Your task to perform on an android device: What is the news today? Image 0: 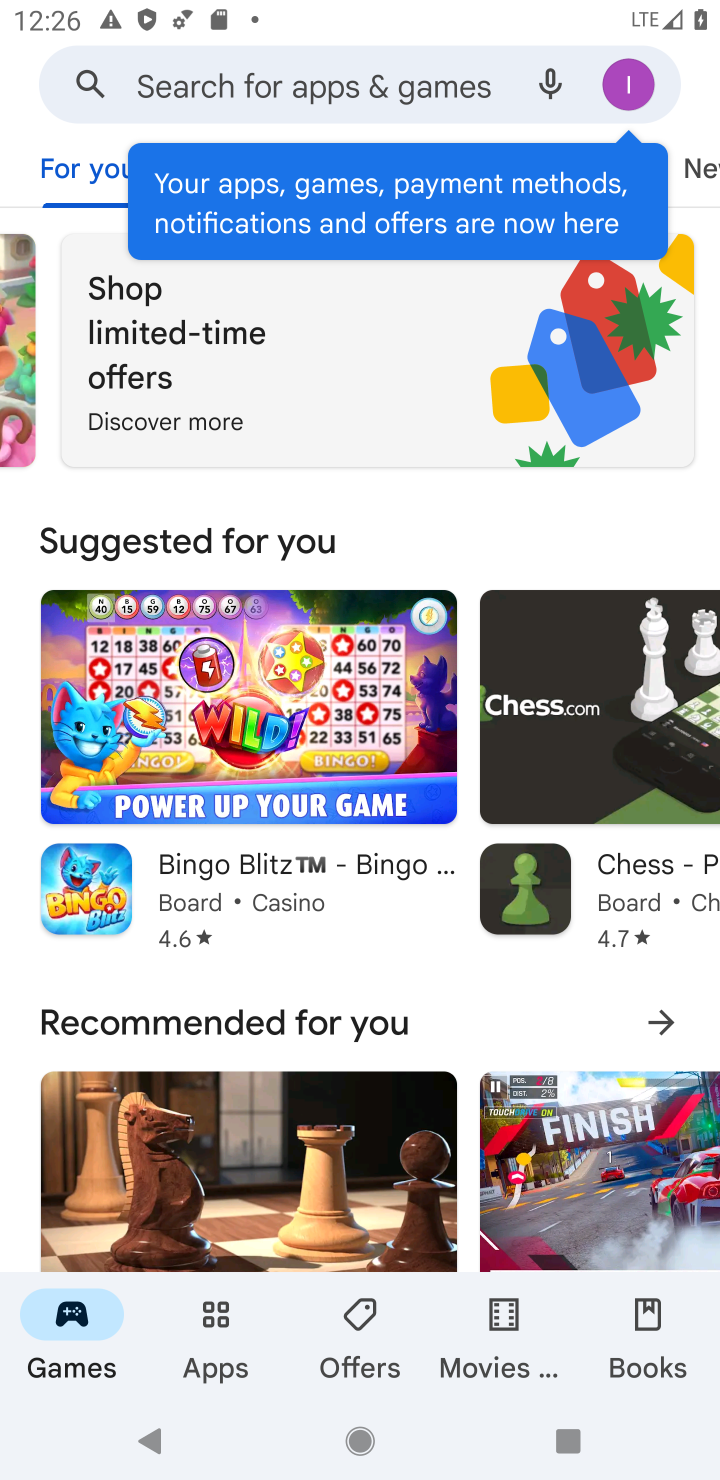
Step 0: press home button
Your task to perform on an android device: What is the news today? Image 1: 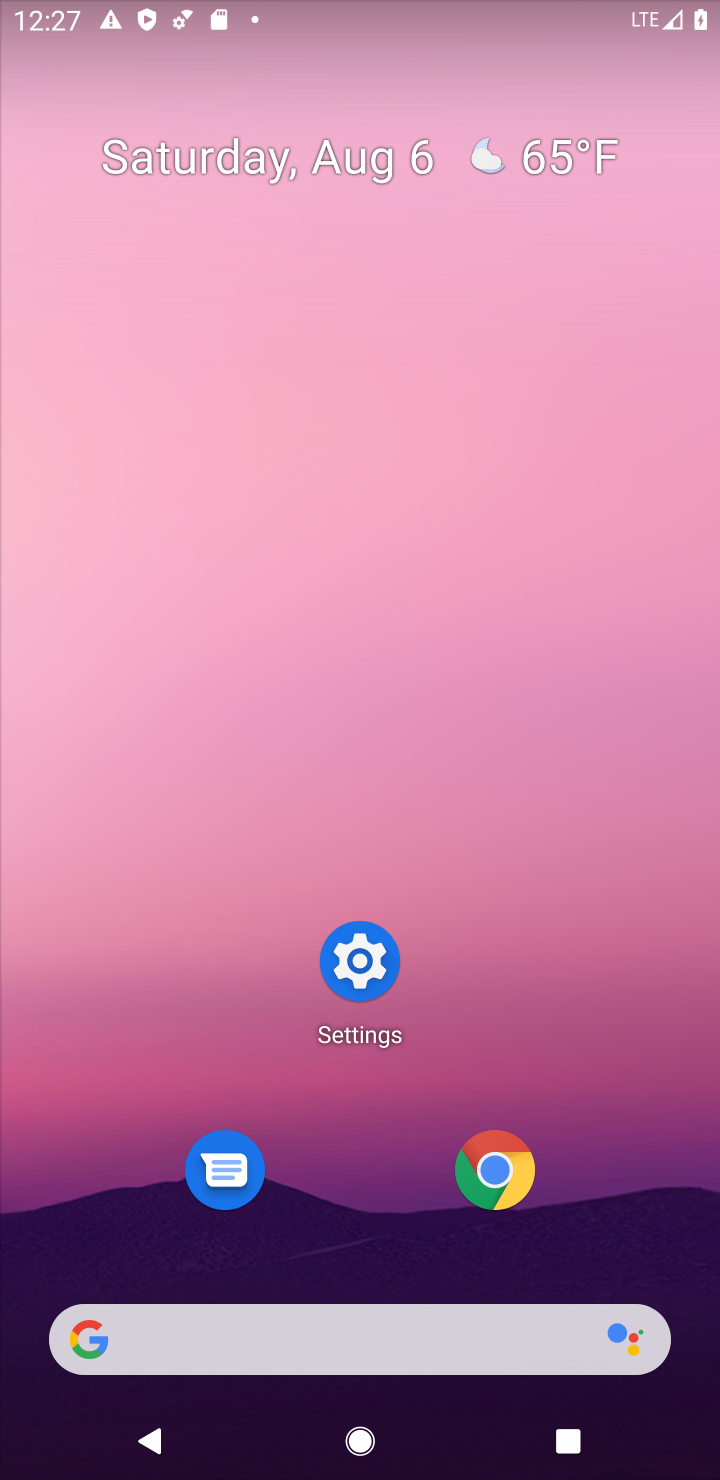
Step 1: click (283, 1352)
Your task to perform on an android device: What is the news today? Image 2: 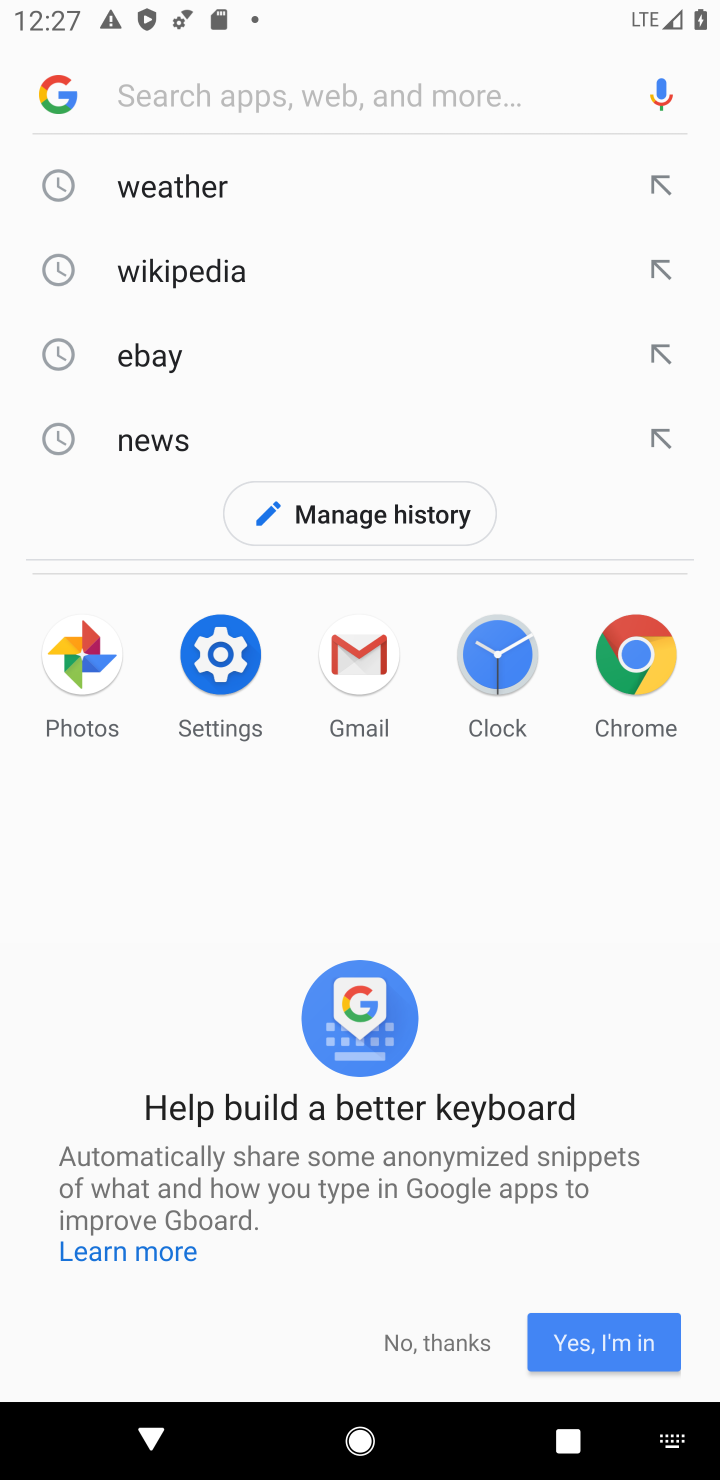
Step 2: type "news today"
Your task to perform on an android device: What is the news today? Image 3: 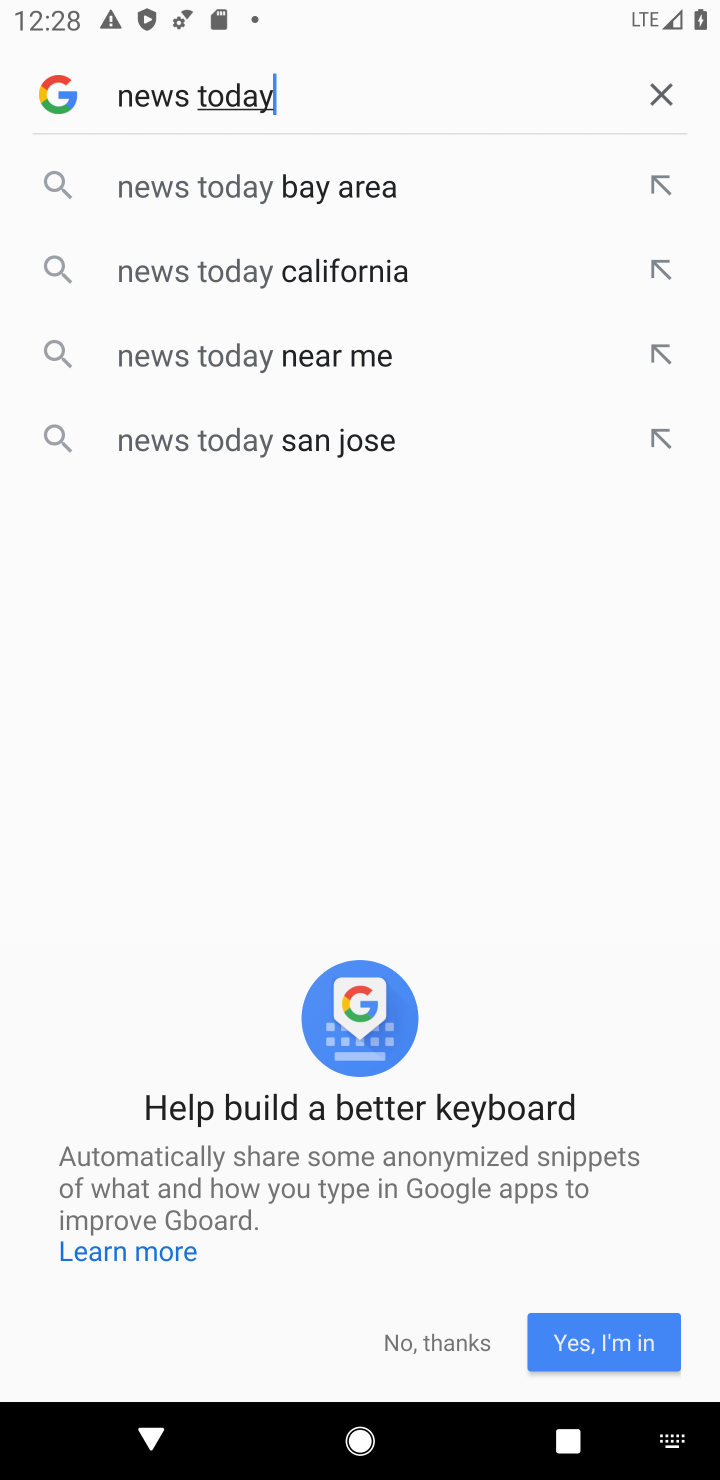
Step 3: click (441, 1349)
Your task to perform on an android device: What is the news today? Image 4: 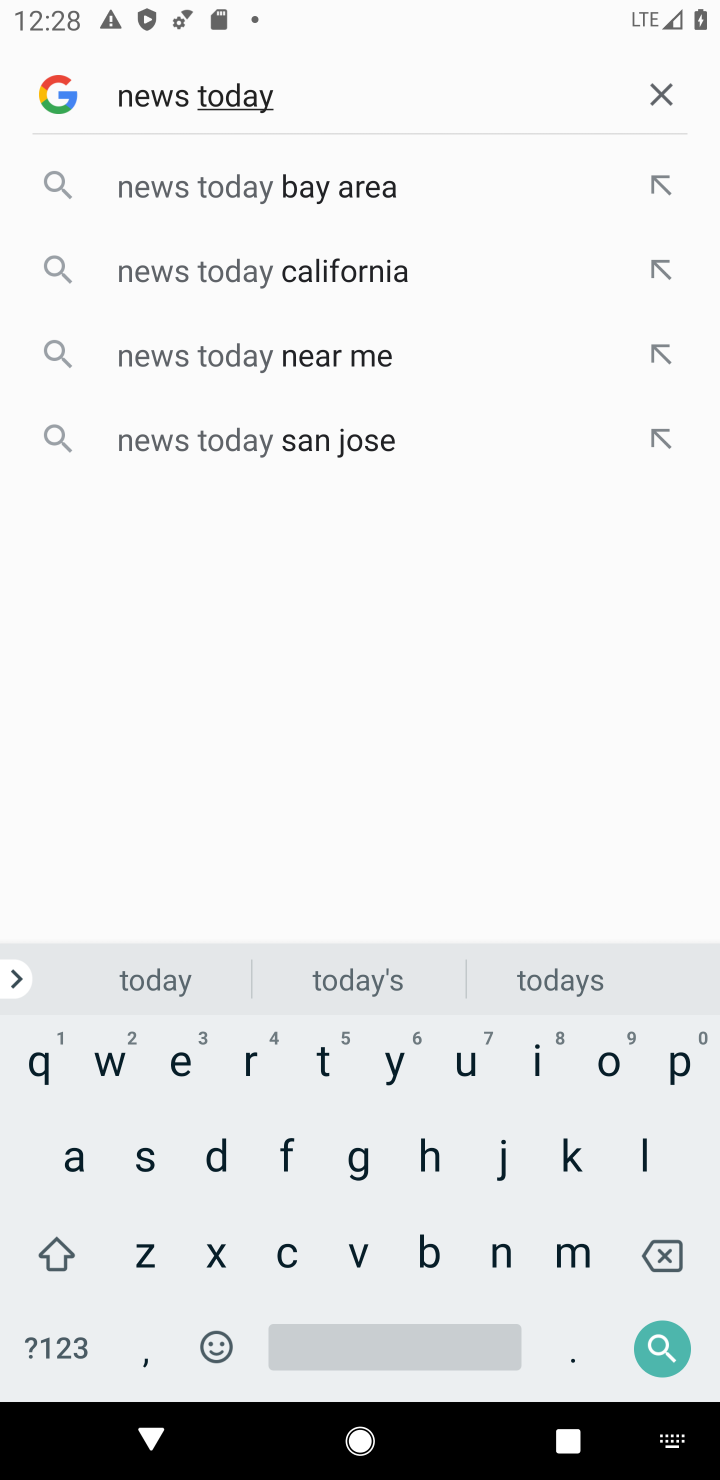
Step 4: click (230, 358)
Your task to perform on an android device: What is the news today? Image 5: 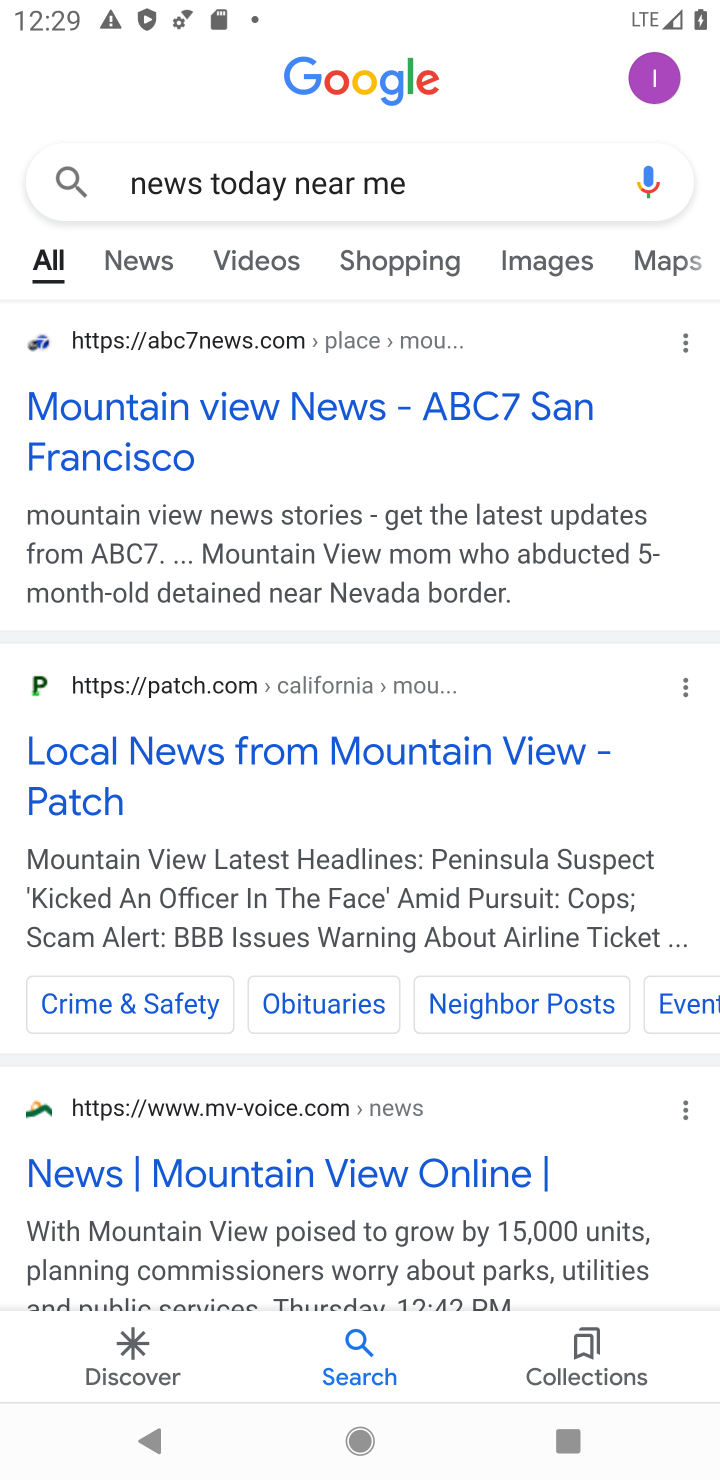
Step 5: task complete